Your task to perform on an android device: Open eBay Image 0: 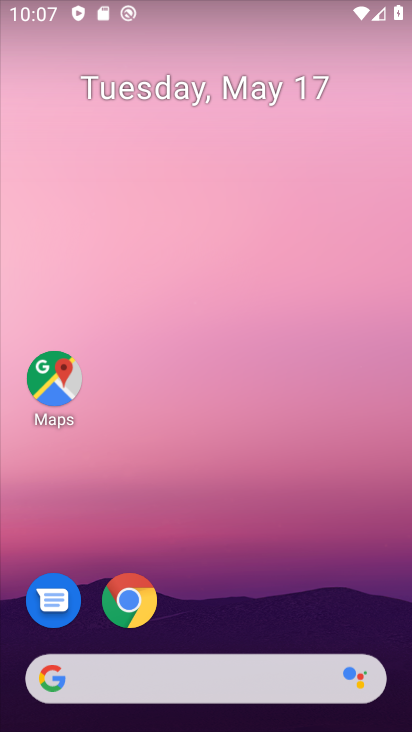
Step 0: click (121, 592)
Your task to perform on an android device: Open eBay Image 1: 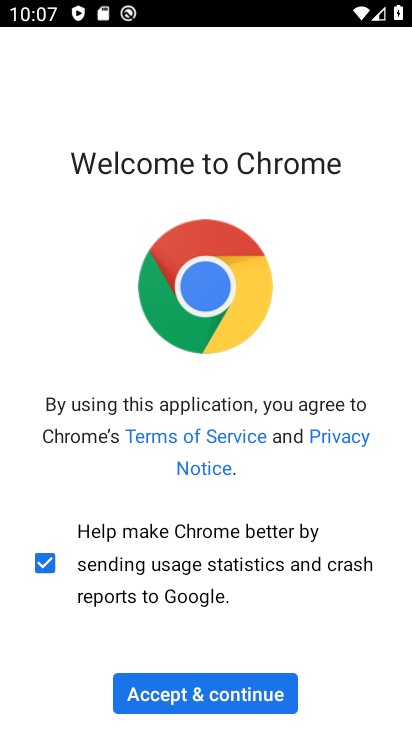
Step 1: click (246, 691)
Your task to perform on an android device: Open eBay Image 2: 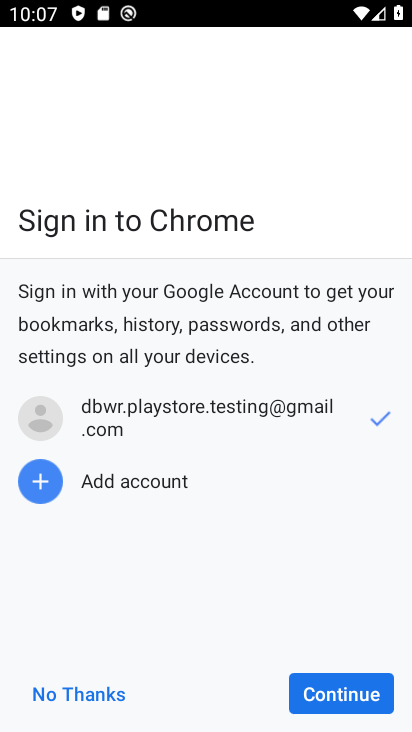
Step 2: click (326, 682)
Your task to perform on an android device: Open eBay Image 3: 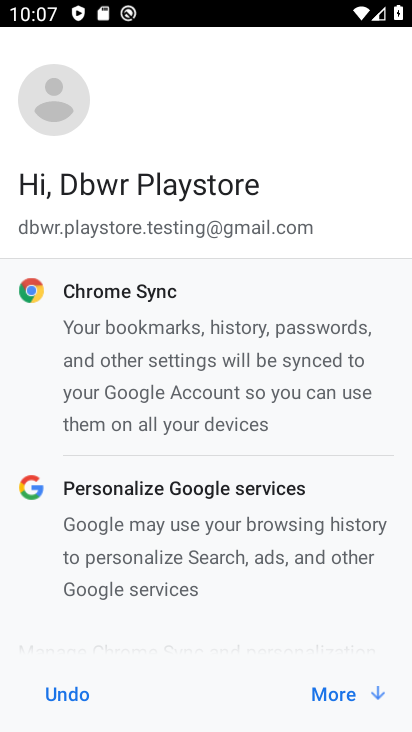
Step 3: click (323, 691)
Your task to perform on an android device: Open eBay Image 4: 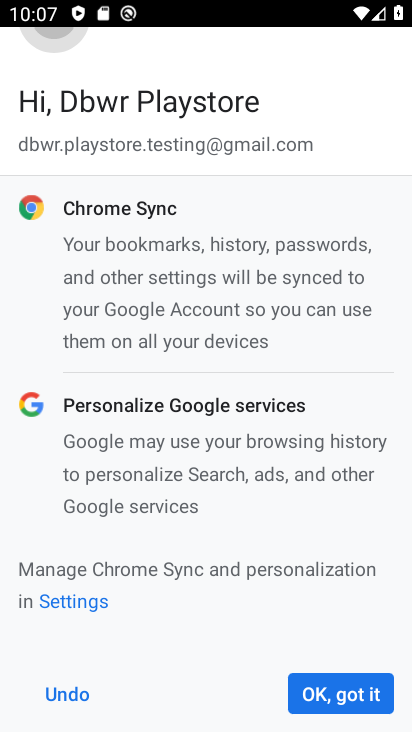
Step 4: click (323, 691)
Your task to perform on an android device: Open eBay Image 5: 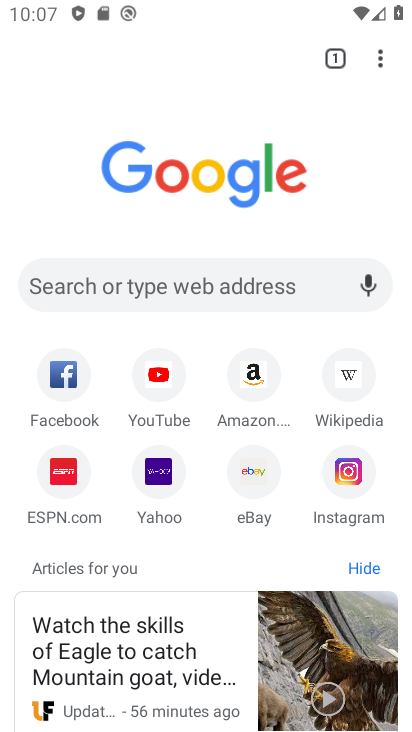
Step 5: click (244, 466)
Your task to perform on an android device: Open eBay Image 6: 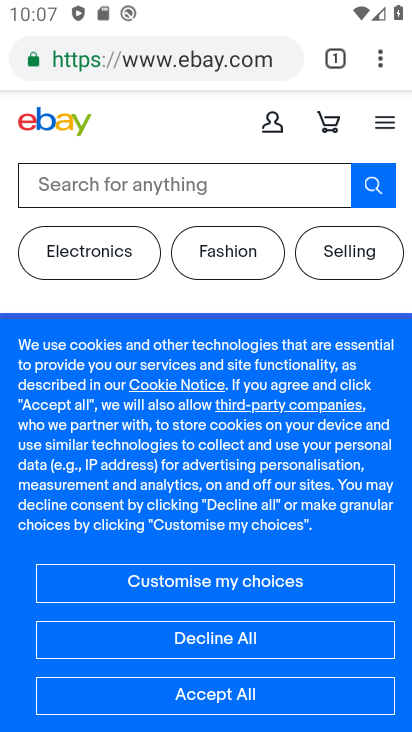
Step 6: task complete